Your task to perform on an android device: change the clock display to show seconds Image 0: 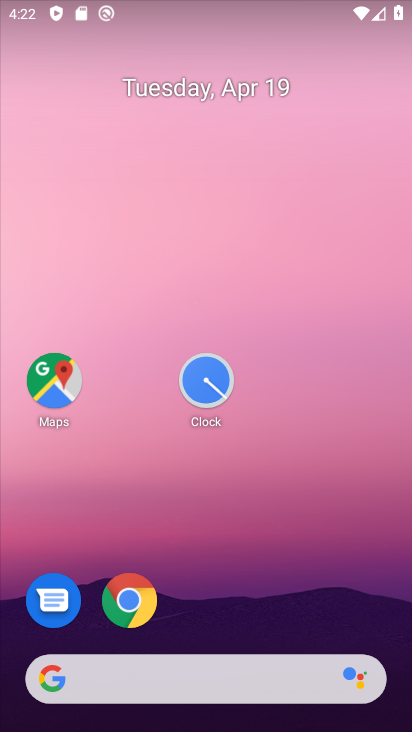
Step 0: drag from (314, 584) to (174, 93)
Your task to perform on an android device: change the clock display to show seconds Image 1: 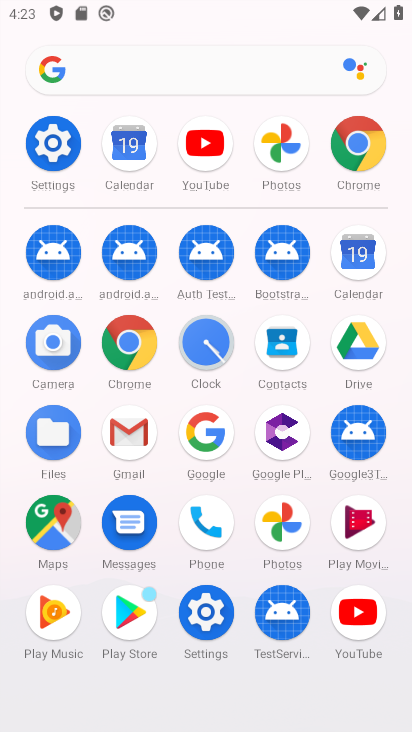
Step 1: click (212, 347)
Your task to perform on an android device: change the clock display to show seconds Image 2: 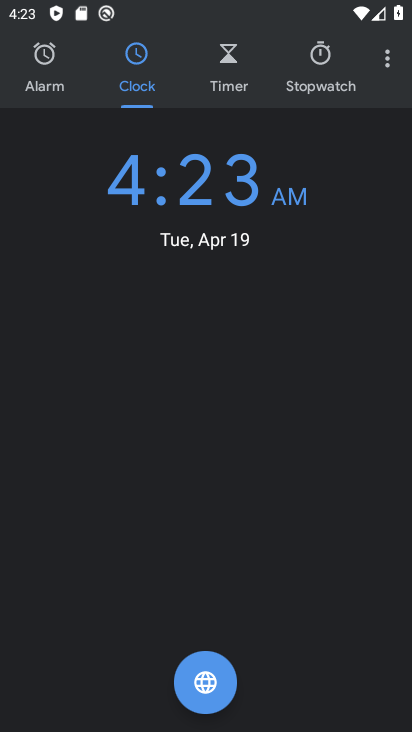
Step 2: click (380, 57)
Your task to perform on an android device: change the clock display to show seconds Image 3: 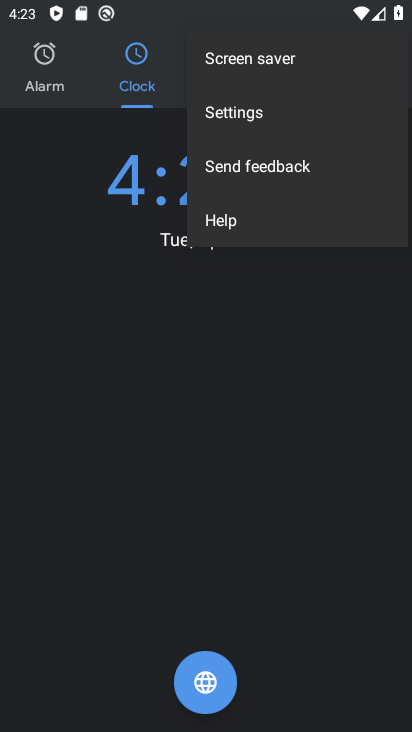
Step 3: click (237, 114)
Your task to perform on an android device: change the clock display to show seconds Image 4: 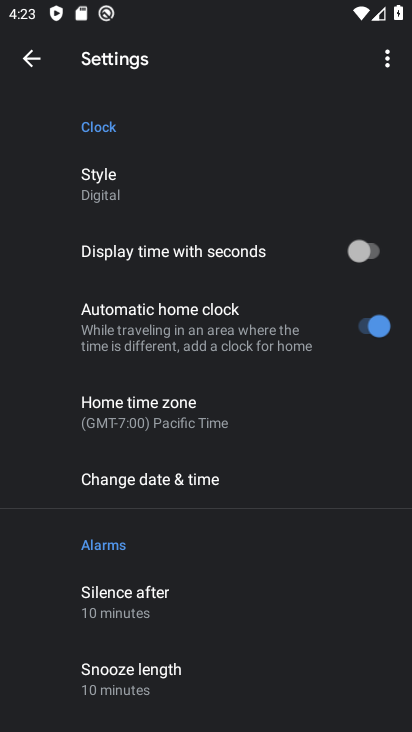
Step 4: click (358, 254)
Your task to perform on an android device: change the clock display to show seconds Image 5: 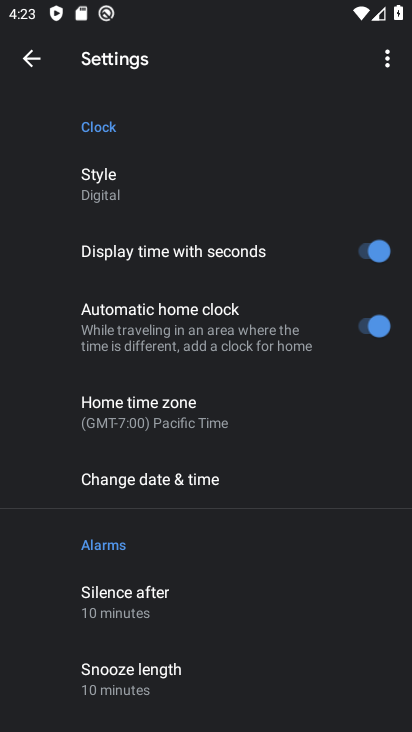
Step 5: task complete